Your task to perform on an android device: turn pop-ups off in chrome Image 0: 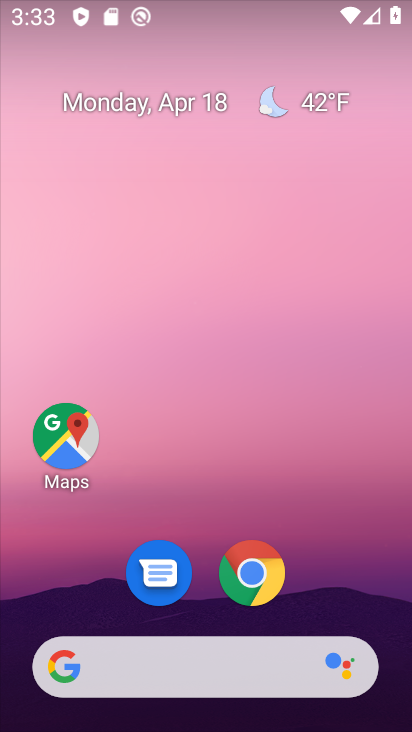
Step 0: click (257, 573)
Your task to perform on an android device: turn pop-ups off in chrome Image 1: 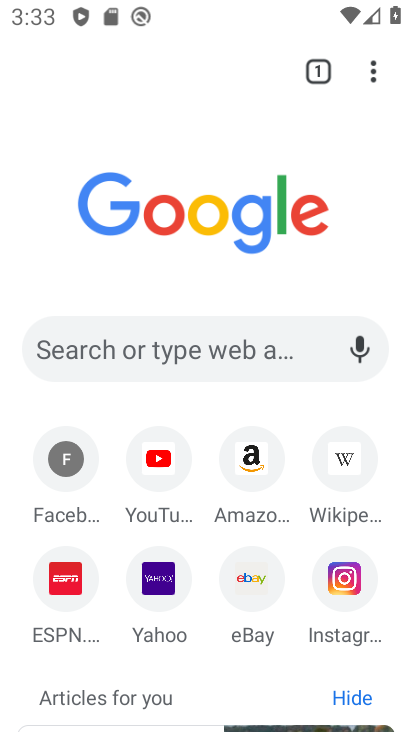
Step 1: click (379, 66)
Your task to perform on an android device: turn pop-ups off in chrome Image 2: 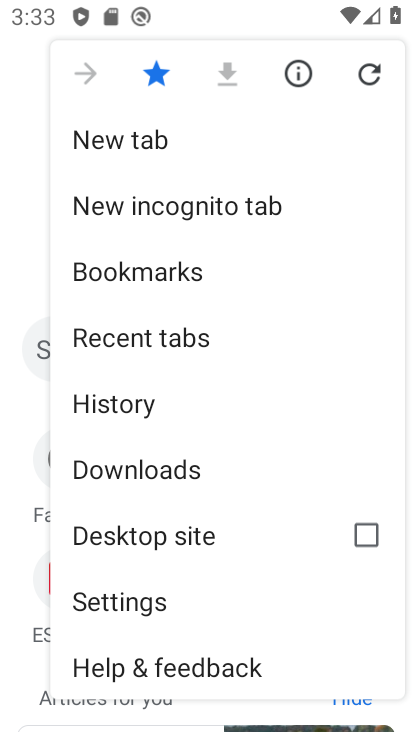
Step 2: click (116, 602)
Your task to perform on an android device: turn pop-ups off in chrome Image 3: 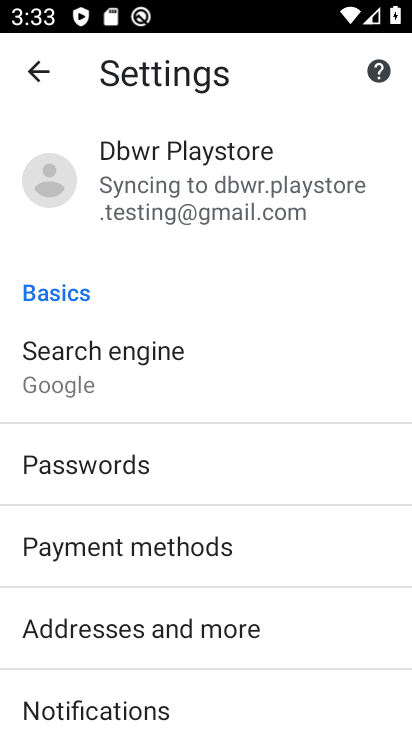
Step 3: drag from (178, 701) to (222, 330)
Your task to perform on an android device: turn pop-ups off in chrome Image 4: 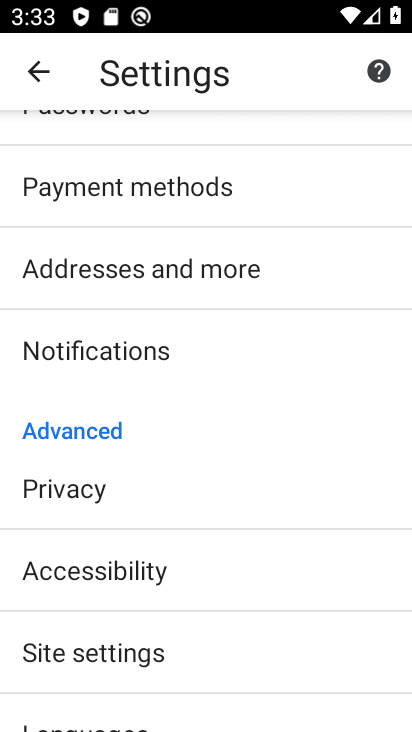
Step 4: click (124, 649)
Your task to perform on an android device: turn pop-ups off in chrome Image 5: 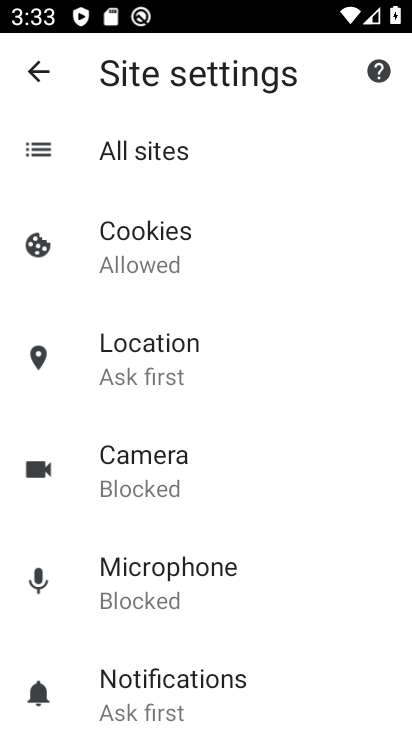
Step 5: drag from (281, 692) to (267, 278)
Your task to perform on an android device: turn pop-ups off in chrome Image 6: 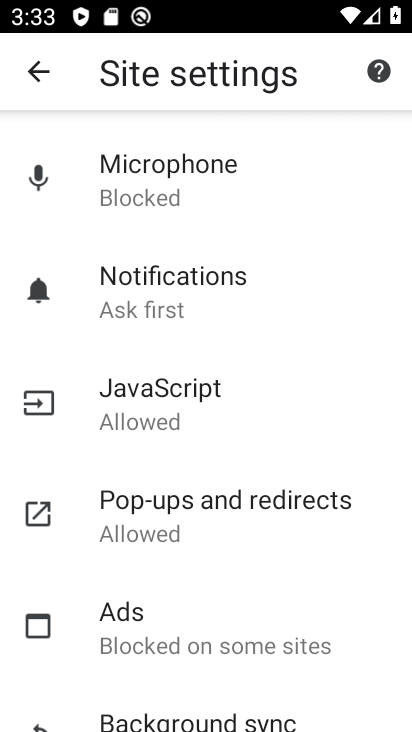
Step 6: click (173, 517)
Your task to perform on an android device: turn pop-ups off in chrome Image 7: 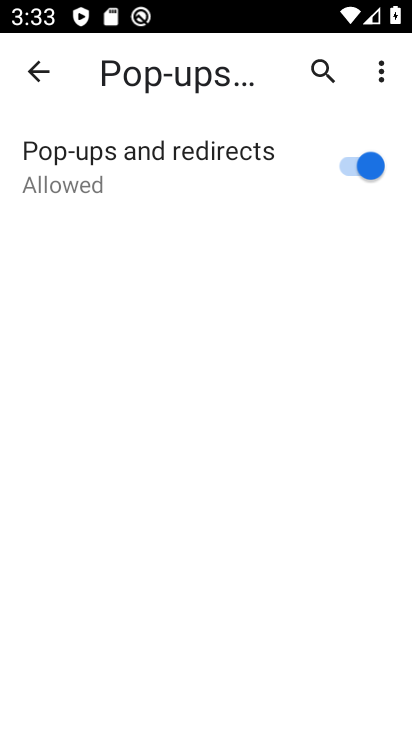
Step 7: click (354, 163)
Your task to perform on an android device: turn pop-ups off in chrome Image 8: 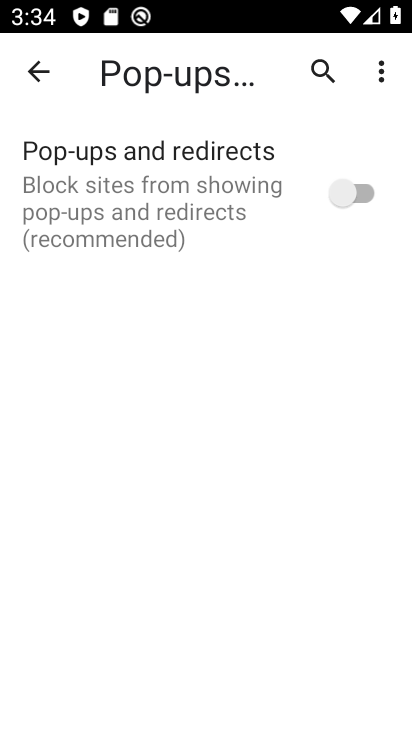
Step 8: task complete